Your task to perform on an android device: turn pop-ups off in chrome Image 0: 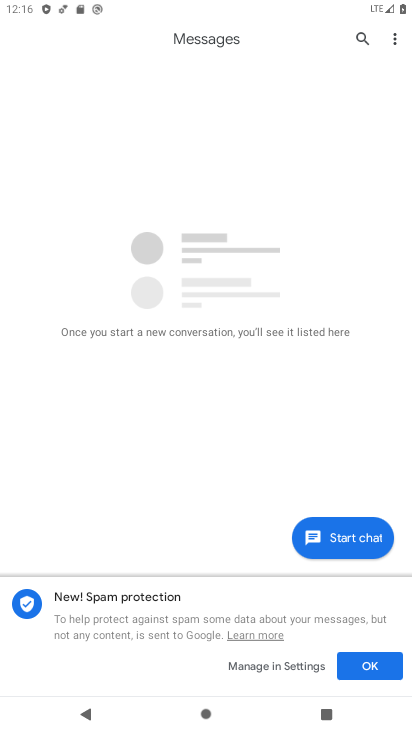
Step 0: press home button
Your task to perform on an android device: turn pop-ups off in chrome Image 1: 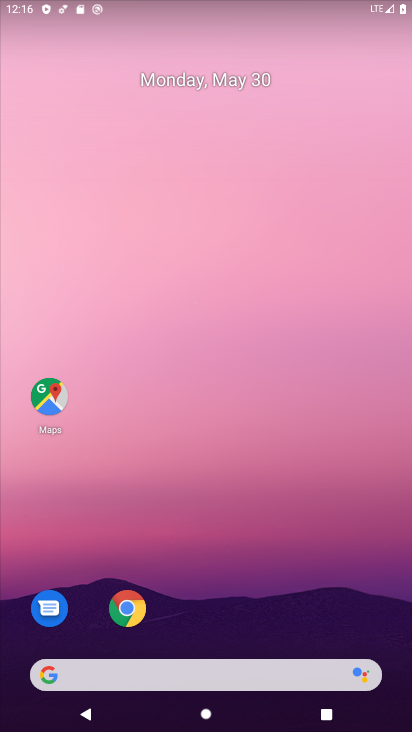
Step 1: click (217, 619)
Your task to perform on an android device: turn pop-ups off in chrome Image 2: 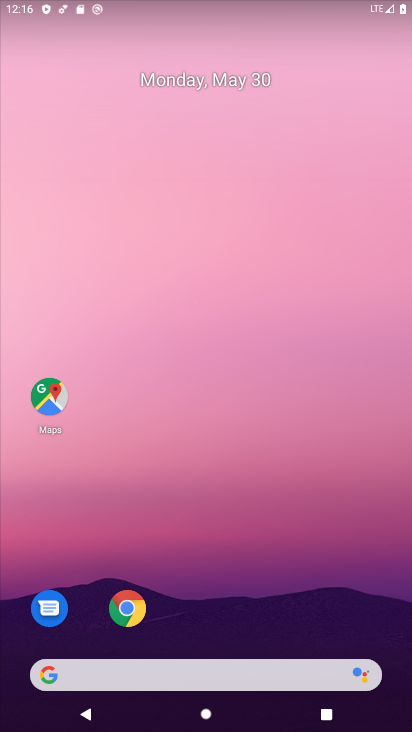
Step 2: click (138, 609)
Your task to perform on an android device: turn pop-ups off in chrome Image 3: 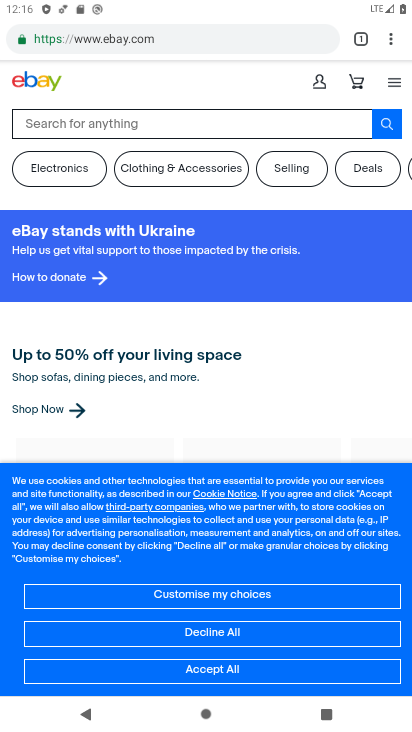
Step 3: click (389, 31)
Your task to perform on an android device: turn pop-ups off in chrome Image 4: 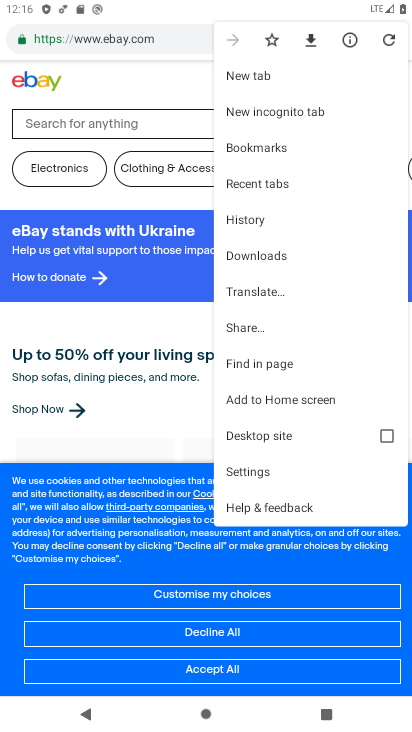
Step 4: click (259, 471)
Your task to perform on an android device: turn pop-ups off in chrome Image 5: 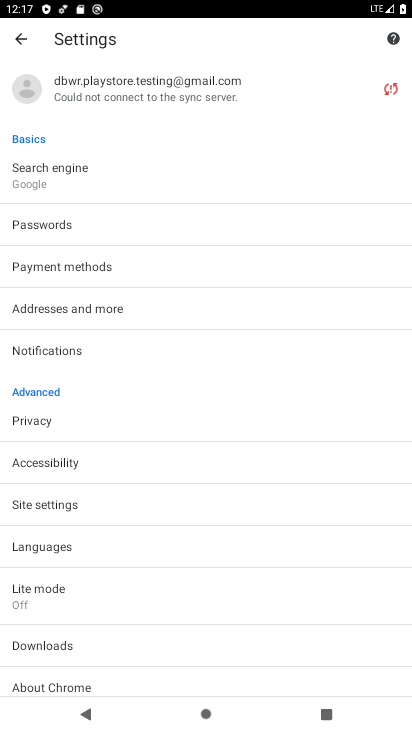
Step 5: click (59, 504)
Your task to perform on an android device: turn pop-ups off in chrome Image 6: 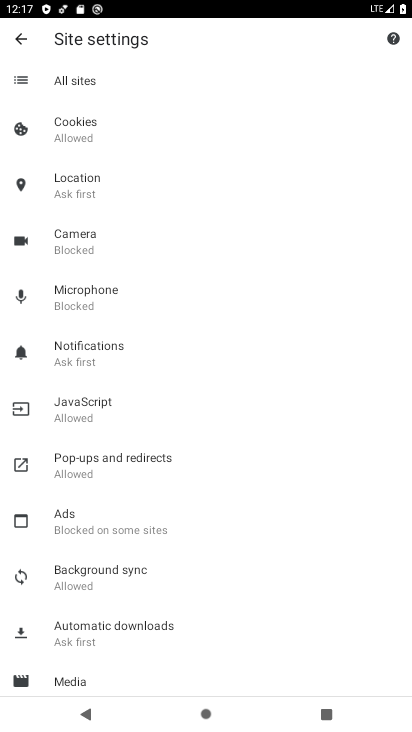
Step 6: click (95, 467)
Your task to perform on an android device: turn pop-ups off in chrome Image 7: 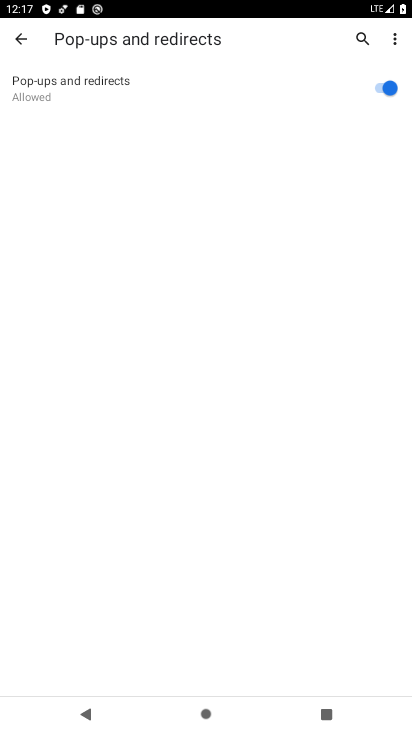
Step 7: click (360, 87)
Your task to perform on an android device: turn pop-ups off in chrome Image 8: 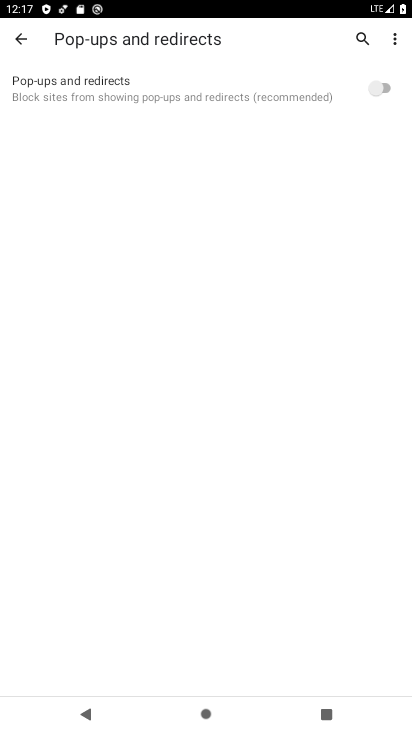
Step 8: task complete